Your task to perform on an android device: turn off notifications settings in the gmail app Image 0: 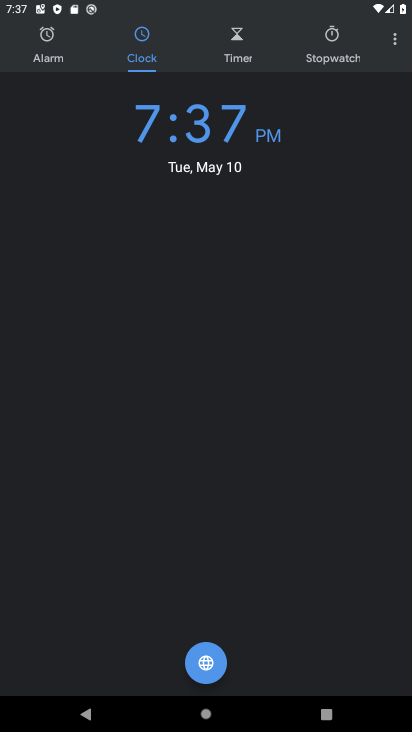
Step 0: press home button
Your task to perform on an android device: turn off notifications settings in the gmail app Image 1: 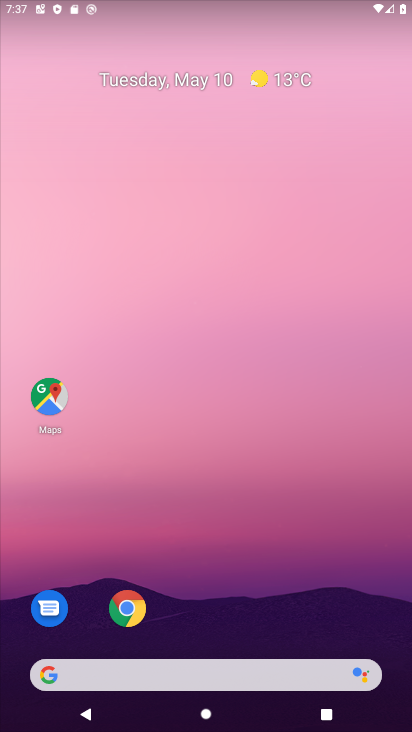
Step 1: drag from (211, 624) to (275, 117)
Your task to perform on an android device: turn off notifications settings in the gmail app Image 2: 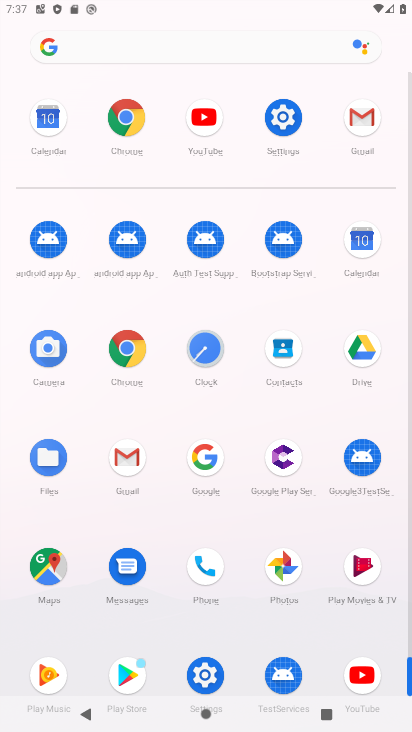
Step 2: click (358, 122)
Your task to perform on an android device: turn off notifications settings in the gmail app Image 3: 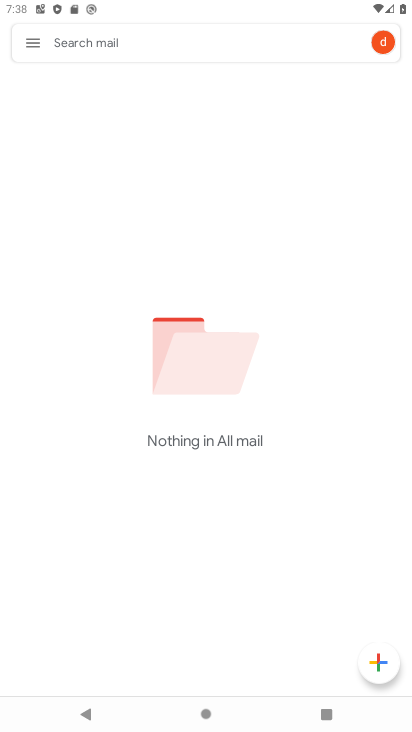
Step 3: click (39, 51)
Your task to perform on an android device: turn off notifications settings in the gmail app Image 4: 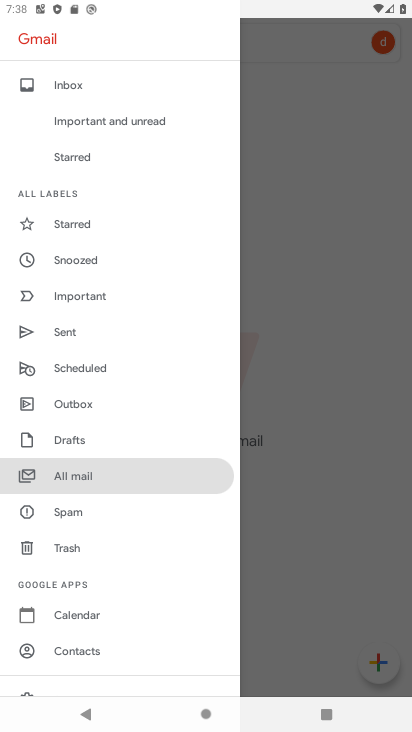
Step 4: drag from (75, 671) to (155, 175)
Your task to perform on an android device: turn off notifications settings in the gmail app Image 5: 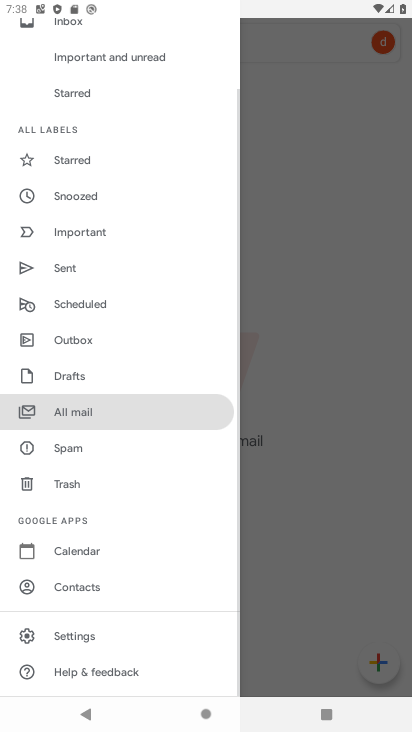
Step 5: click (87, 645)
Your task to perform on an android device: turn off notifications settings in the gmail app Image 6: 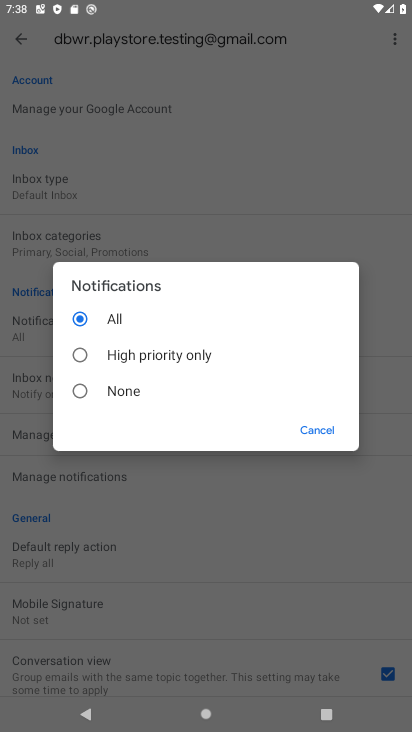
Step 6: click (81, 400)
Your task to perform on an android device: turn off notifications settings in the gmail app Image 7: 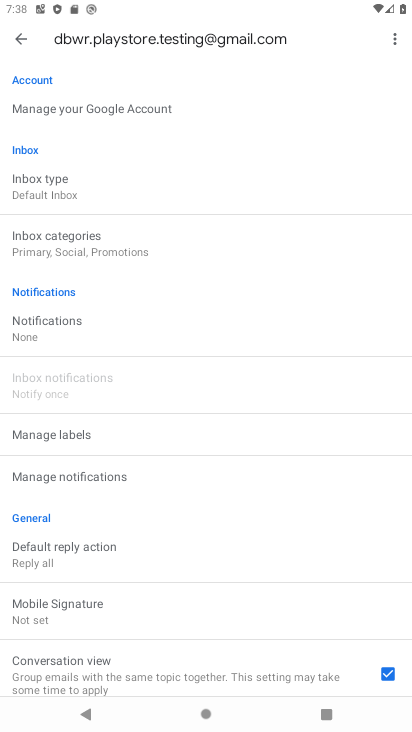
Step 7: task complete